Your task to perform on an android device: turn on improve location accuracy Image 0: 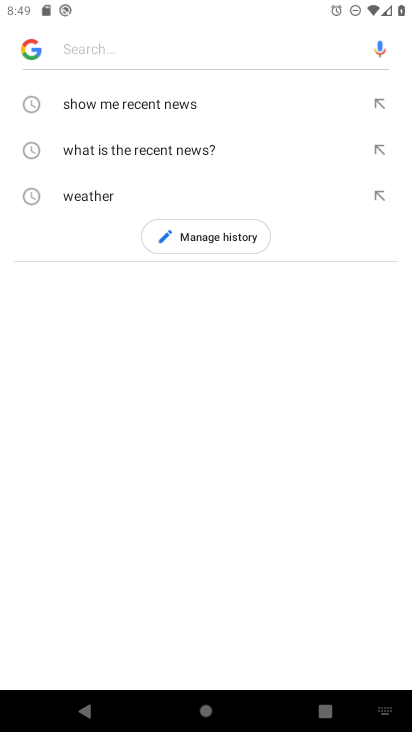
Step 0: press home button
Your task to perform on an android device: turn on improve location accuracy Image 1: 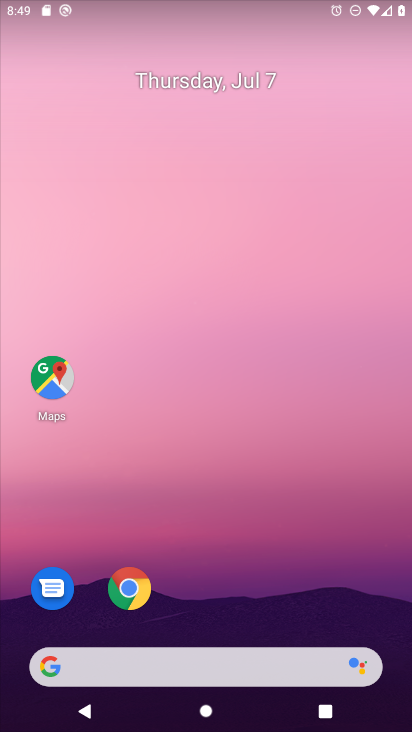
Step 1: drag from (272, 601) to (256, 207)
Your task to perform on an android device: turn on improve location accuracy Image 2: 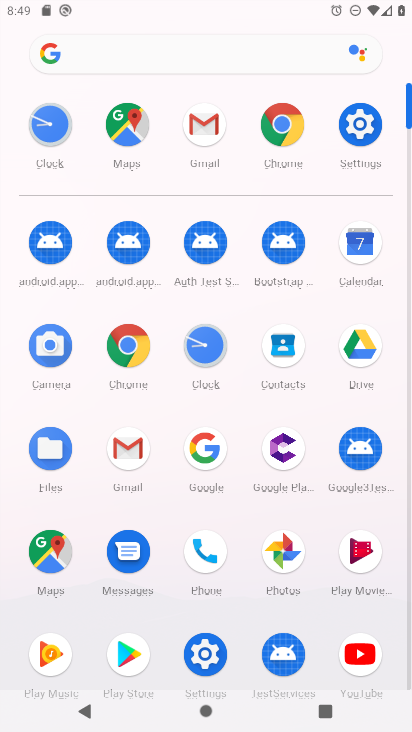
Step 2: click (367, 125)
Your task to perform on an android device: turn on improve location accuracy Image 3: 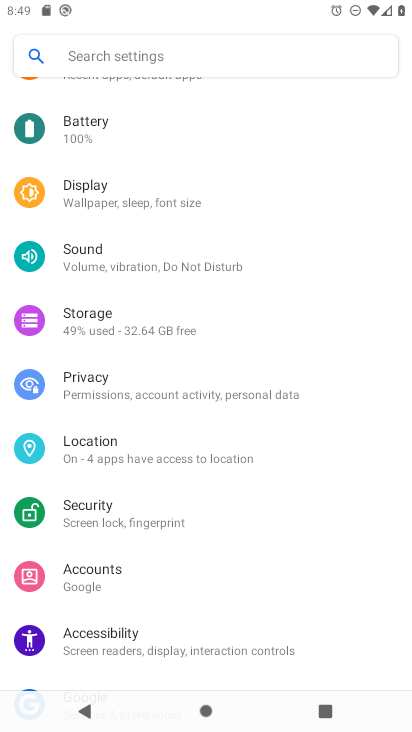
Step 3: drag from (171, 147) to (176, 308)
Your task to perform on an android device: turn on improve location accuracy Image 4: 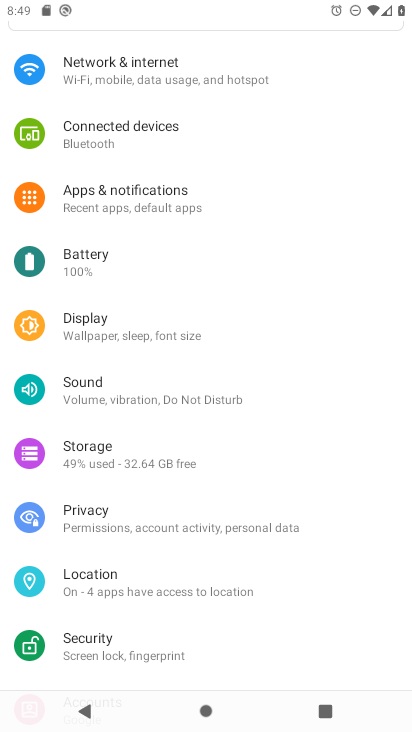
Step 4: click (141, 572)
Your task to perform on an android device: turn on improve location accuracy Image 5: 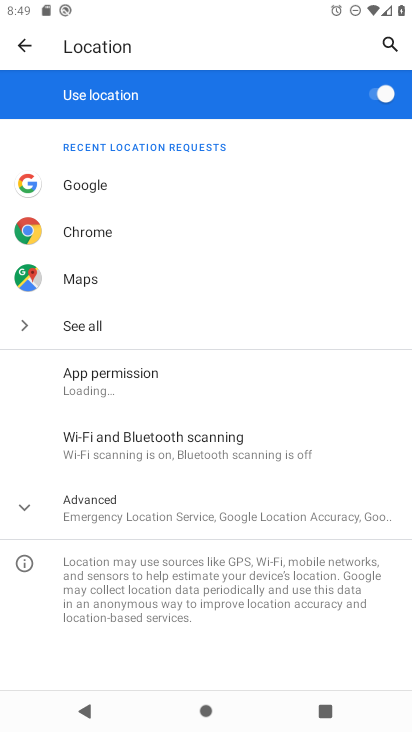
Step 5: click (204, 492)
Your task to perform on an android device: turn on improve location accuracy Image 6: 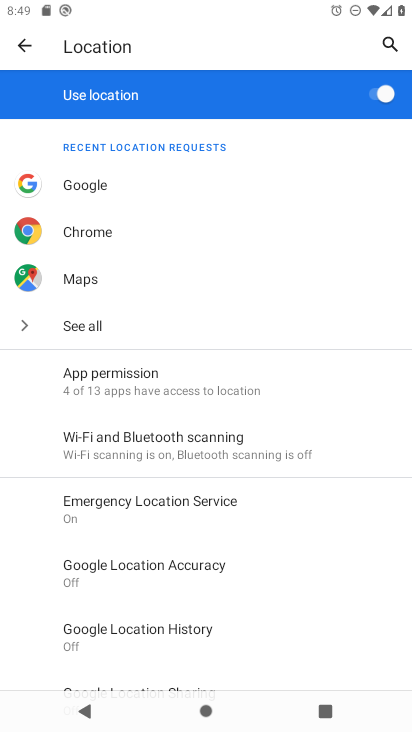
Step 6: click (180, 579)
Your task to perform on an android device: turn on improve location accuracy Image 7: 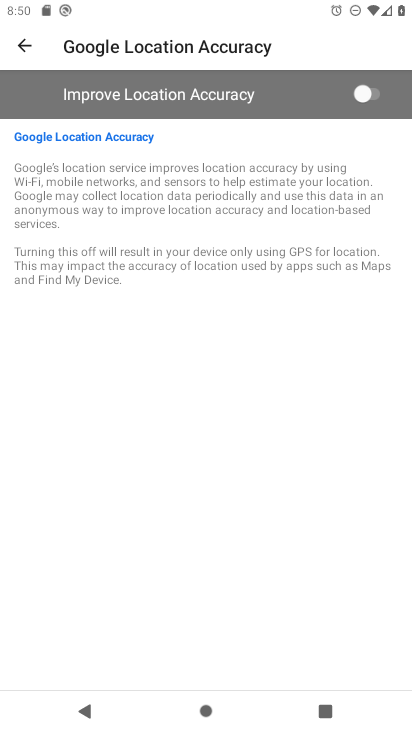
Step 7: click (369, 95)
Your task to perform on an android device: turn on improve location accuracy Image 8: 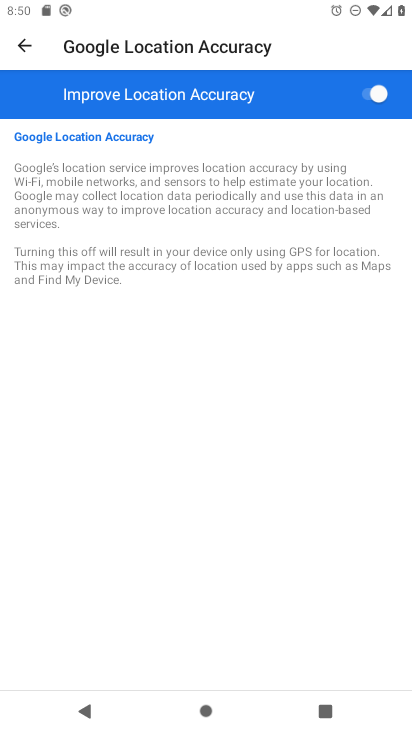
Step 8: task complete